Your task to perform on an android device: toggle show notifications on the lock screen Image 0: 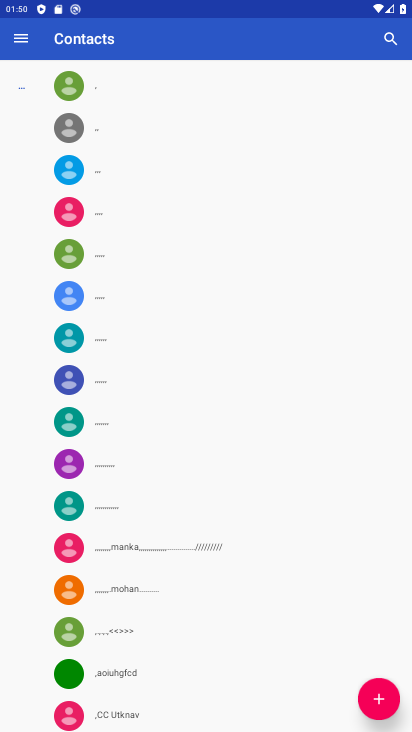
Step 0: press home button
Your task to perform on an android device: toggle show notifications on the lock screen Image 1: 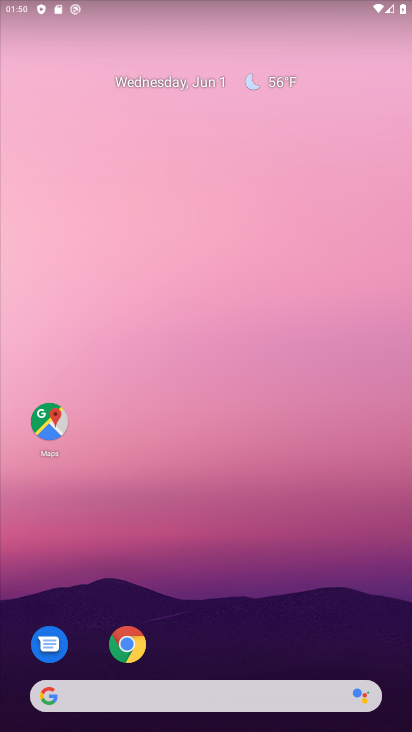
Step 1: drag from (198, 612) to (197, 428)
Your task to perform on an android device: toggle show notifications on the lock screen Image 2: 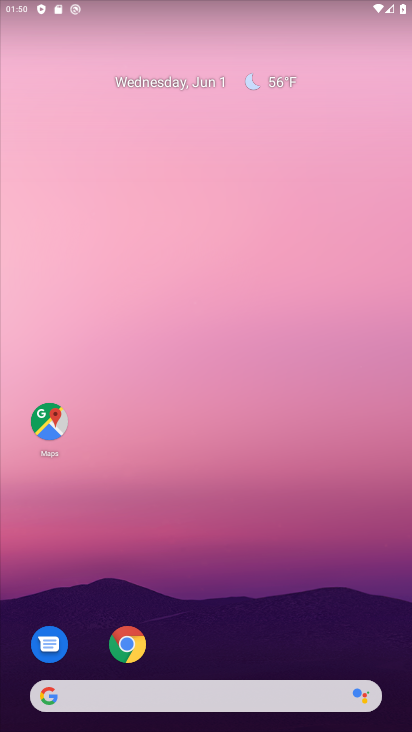
Step 2: drag from (221, 671) to (205, 297)
Your task to perform on an android device: toggle show notifications on the lock screen Image 3: 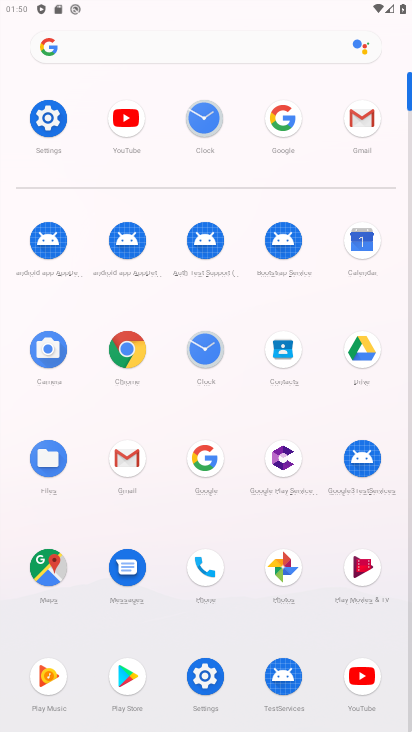
Step 3: click (56, 114)
Your task to perform on an android device: toggle show notifications on the lock screen Image 4: 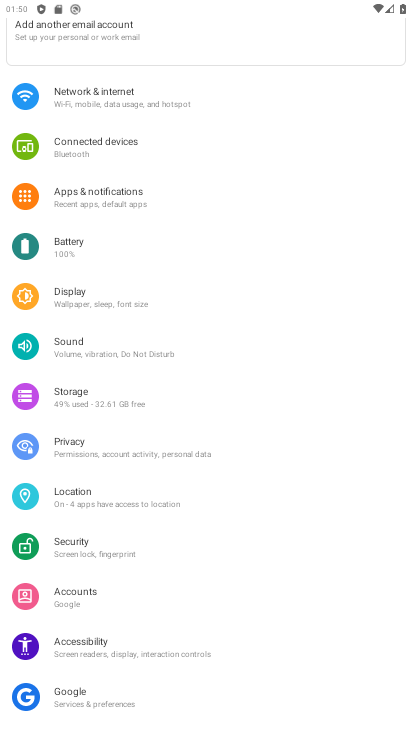
Step 4: click (86, 444)
Your task to perform on an android device: toggle show notifications on the lock screen Image 5: 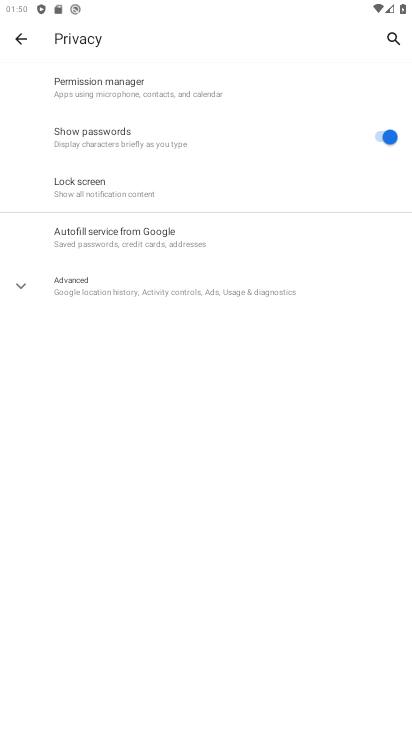
Step 5: click (75, 284)
Your task to perform on an android device: toggle show notifications on the lock screen Image 6: 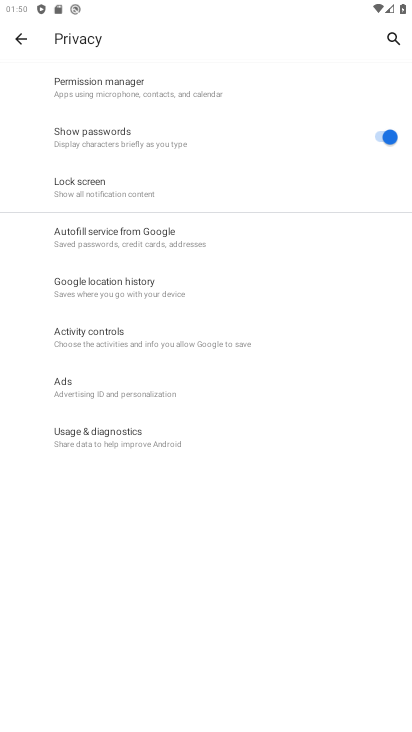
Step 6: click (86, 188)
Your task to perform on an android device: toggle show notifications on the lock screen Image 7: 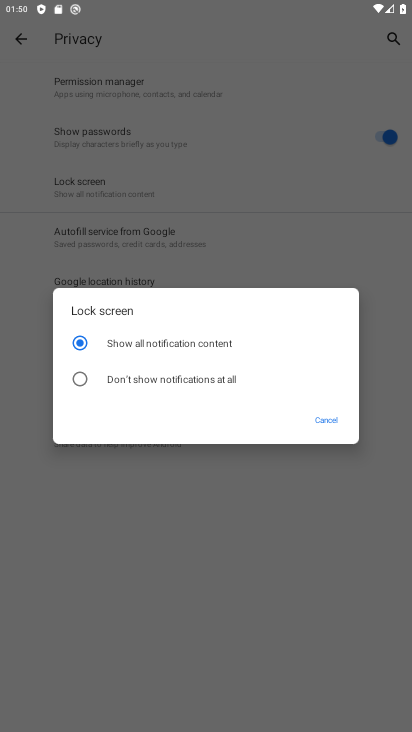
Step 7: click (134, 370)
Your task to perform on an android device: toggle show notifications on the lock screen Image 8: 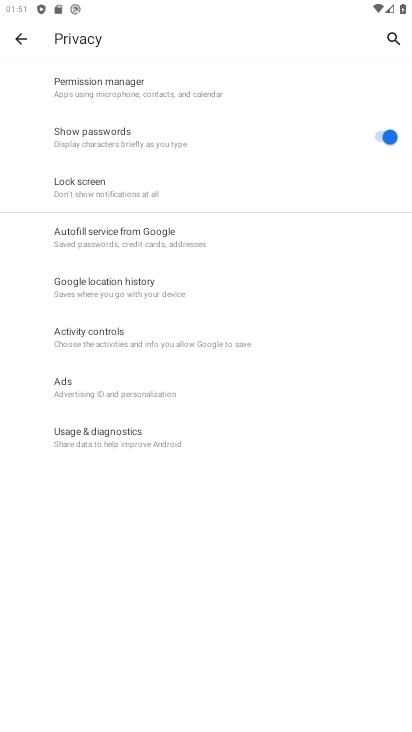
Step 8: task complete